Your task to perform on an android device: read, delete, or share a saved page in the chrome app Image 0: 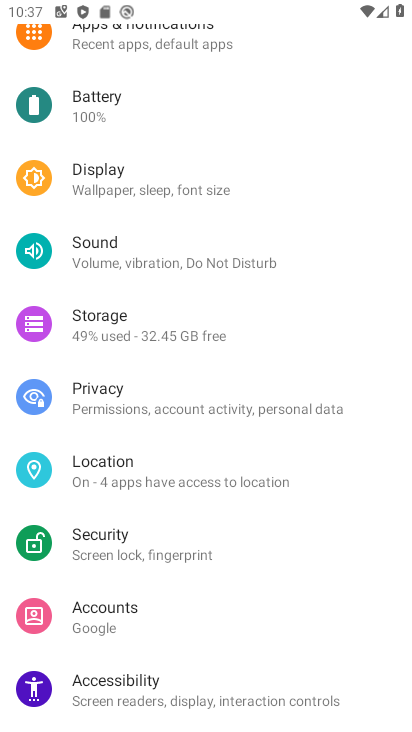
Step 0: press home button
Your task to perform on an android device: read, delete, or share a saved page in the chrome app Image 1: 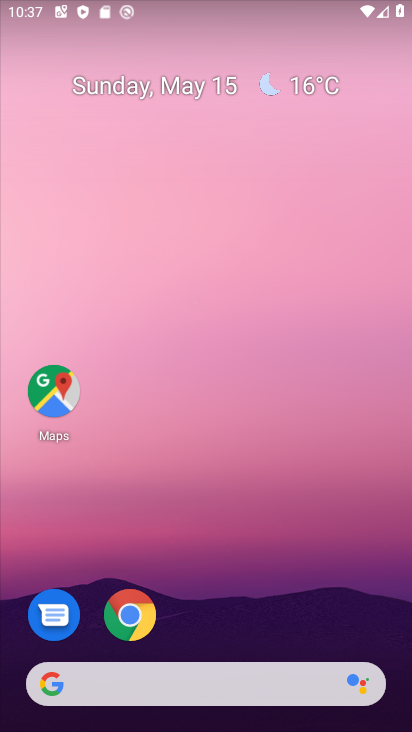
Step 1: drag from (114, 682) to (168, 225)
Your task to perform on an android device: read, delete, or share a saved page in the chrome app Image 2: 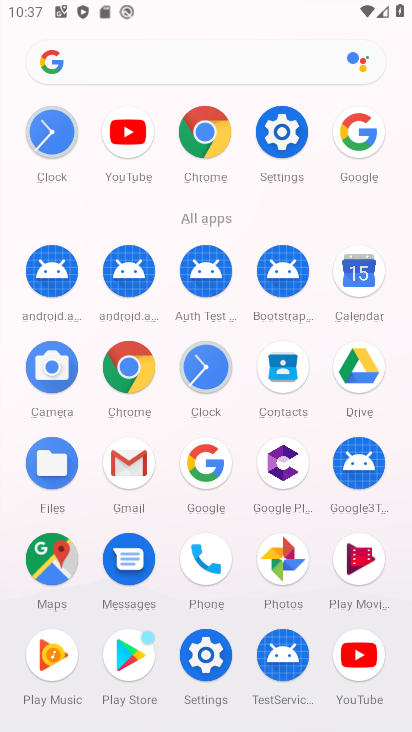
Step 2: click (126, 372)
Your task to perform on an android device: read, delete, or share a saved page in the chrome app Image 3: 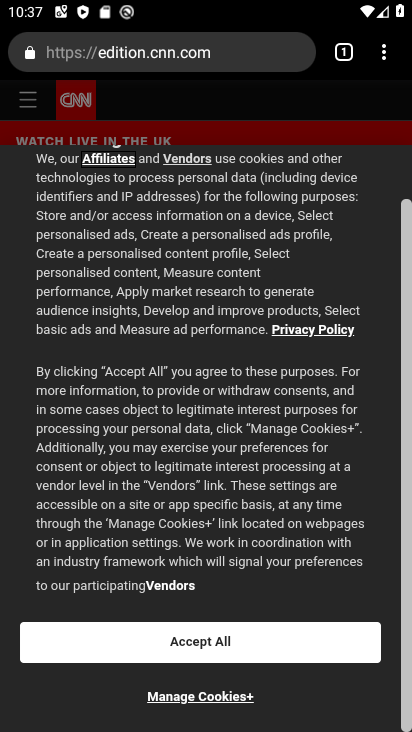
Step 3: click (378, 52)
Your task to perform on an android device: read, delete, or share a saved page in the chrome app Image 4: 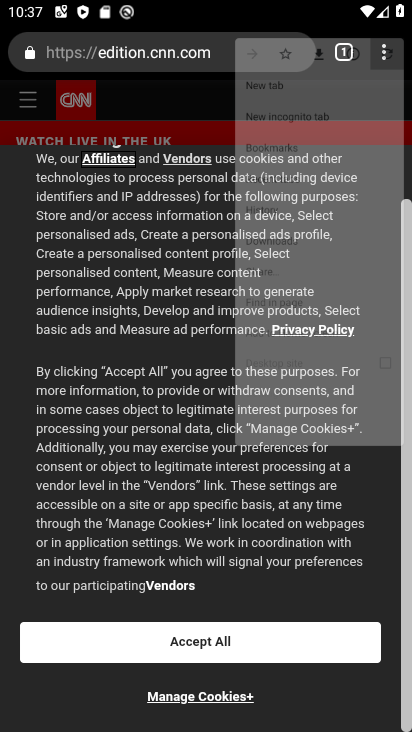
Step 4: click (378, 52)
Your task to perform on an android device: read, delete, or share a saved page in the chrome app Image 5: 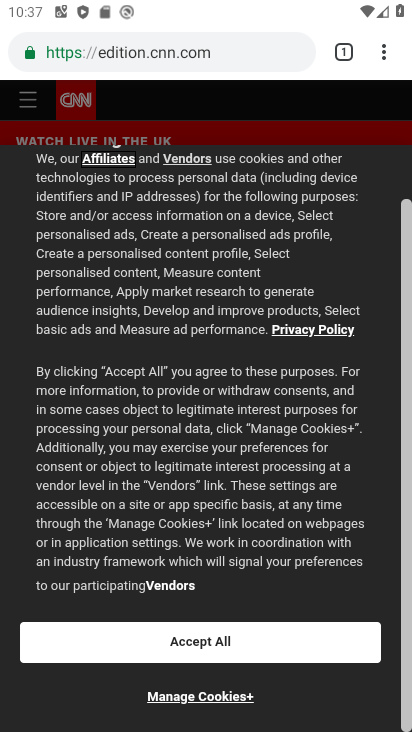
Step 5: task complete